Your task to perform on an android device: empty trash in google photos Image 0: 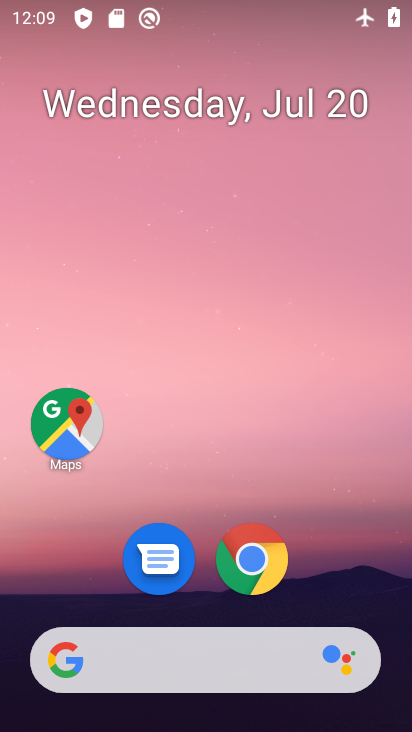
Step 0: drag from (355, 582) to (353, 124)
Your task to perform on an android device: empty trash in google photos Image 1: 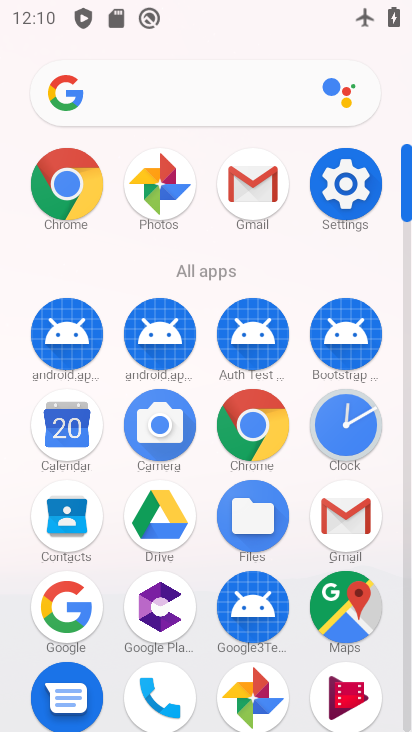
Step 1: click (263, 688)
Your task to perform on an android device: empty trash in google photos Image 2: 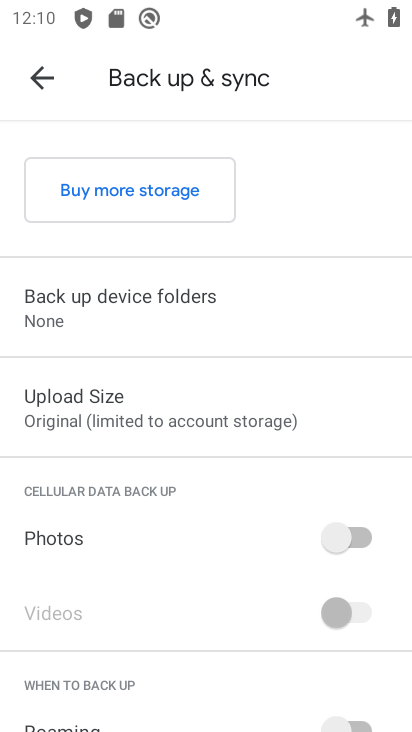
Step 2: press back button
Your task to perform on an android device: empty trash in google photos Image 3: 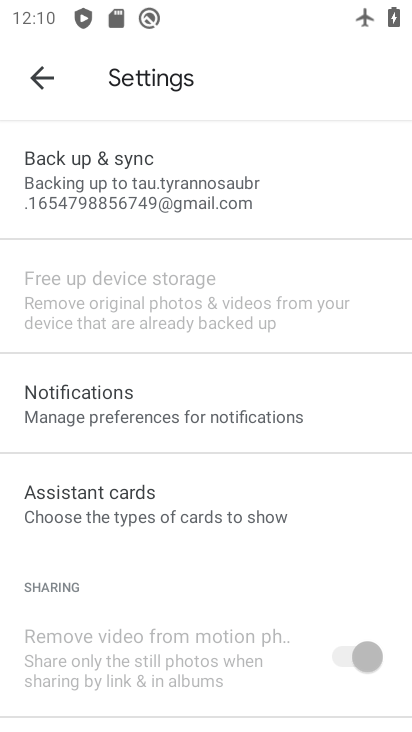
Step 3: press back button
Your task to perform on an android device: empty trash in google photos Image 4: 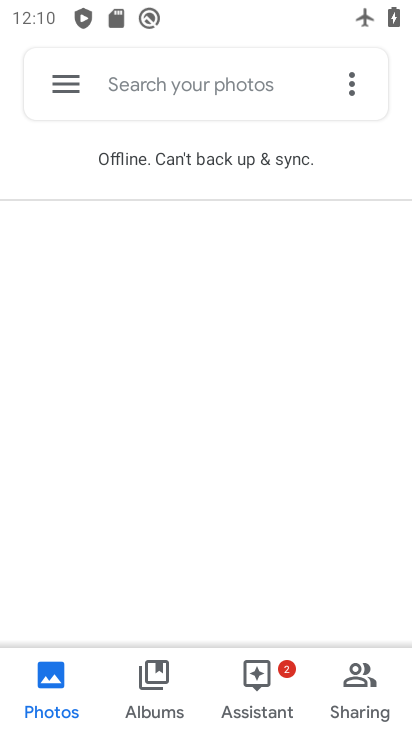
Step 4: click (61, 83)
Your task to perform on an android device: empty trash in google photos Image 5: 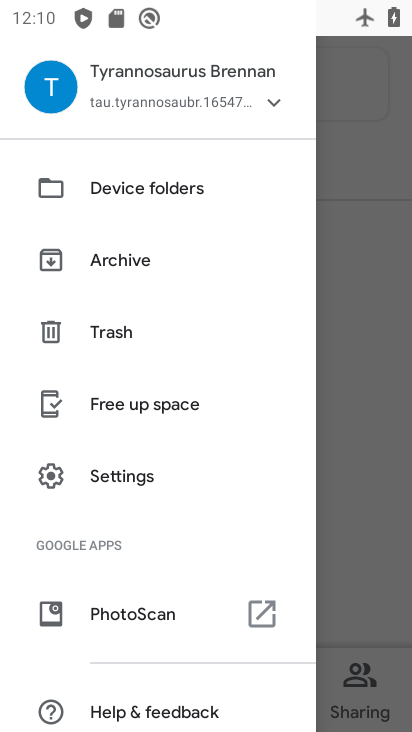
Step 5: click (131, 348)
Your task to perform on an android device: empty trash in google photos Image 6: 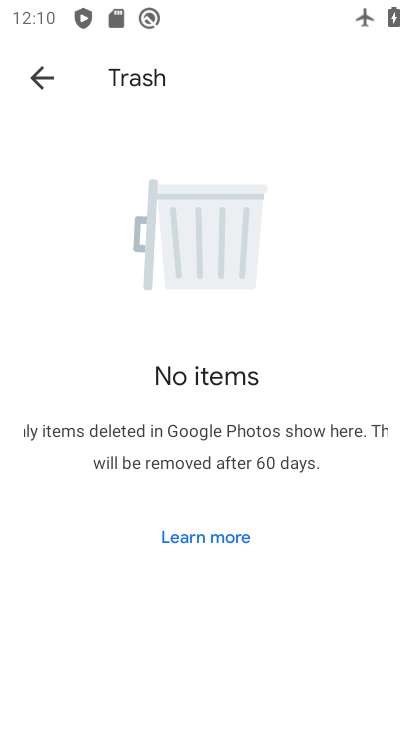
Step 6: task complete